Your task to perform on an android device: check battery use Image 0: 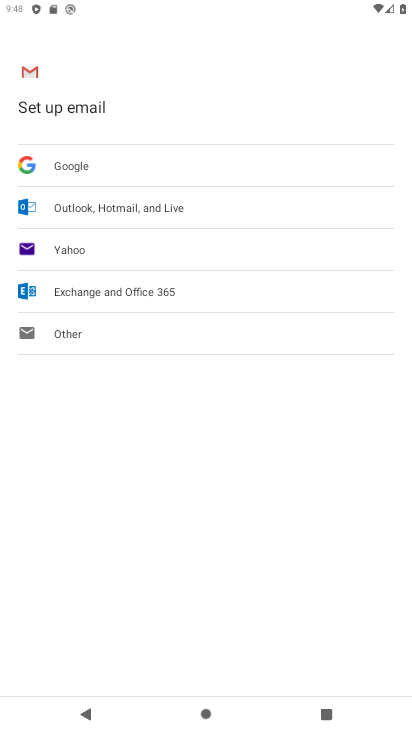
Step 0: press home button
Your task to perform on an android device: check battery use Image 1: 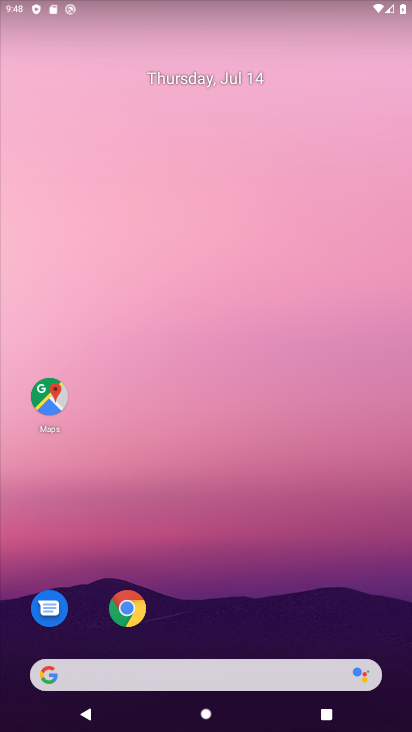
Step 1: drag from (157, 644) to (238, 121)
Your task to perform on an android device: check battery use Image 2: 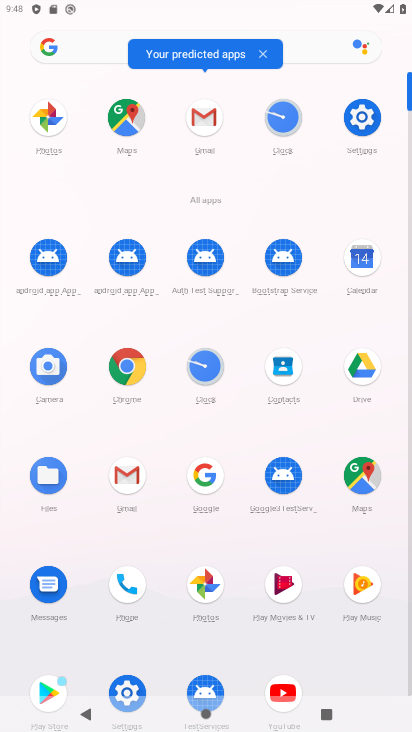
Step 2: click (362, 121)
Your task to perform on an android device: check battery use Image 3: 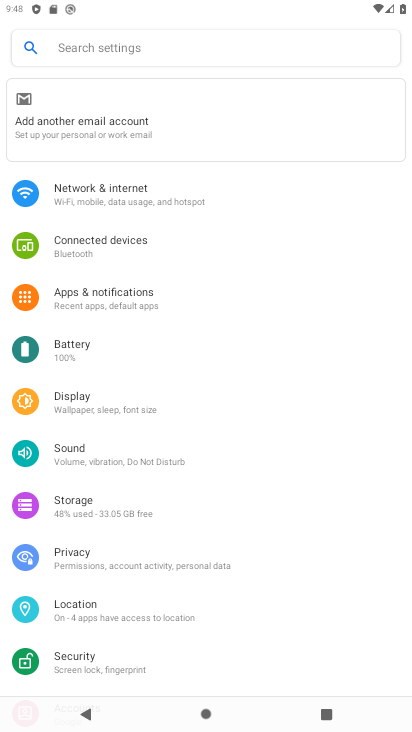
Step 3: drag from (127, 572) to (126, 423)
Your task to perform on an android device: check battery use Image 4: 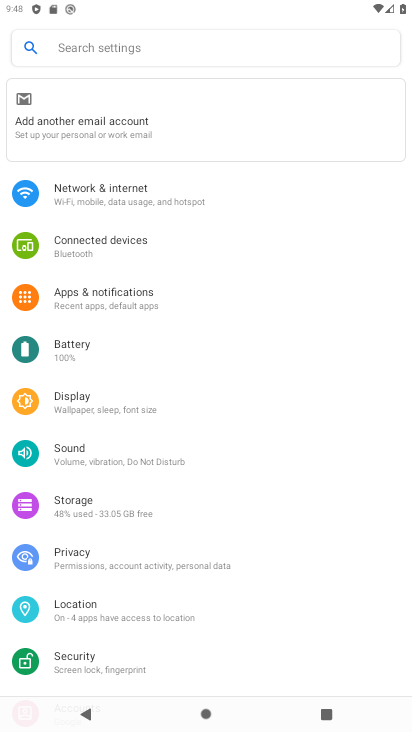
Step 4: click (67, 357)
Your task to perform on an android device: check battery use Image 5: 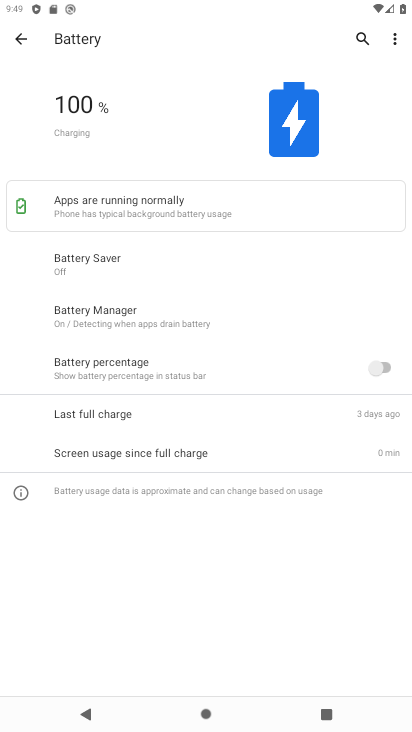
Step 5: task complete